Your task to perform on an android device: Open settings Image 0: 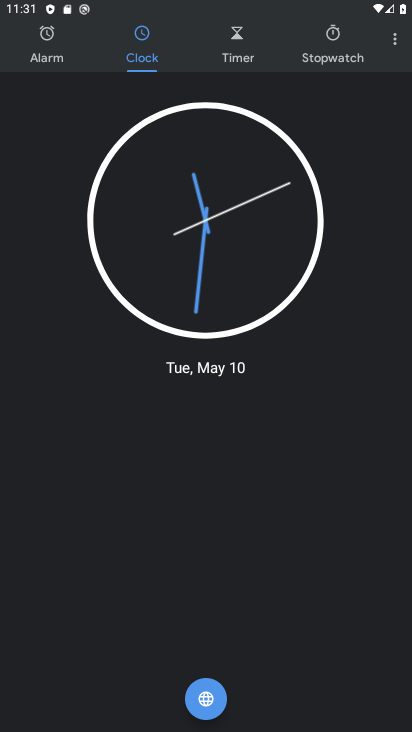
Step 0: press home button
Your task to perform on an android device: Open settings Image 1: 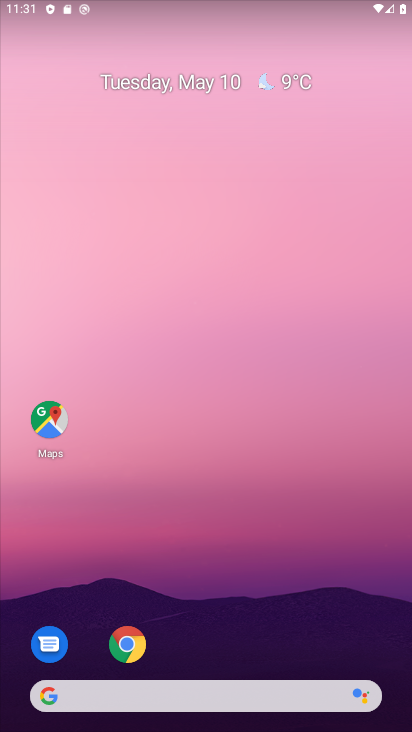
Step 1: drag from (245, 641) to (323, 48)
Your task to perform on an android device: Open settings Image 2: 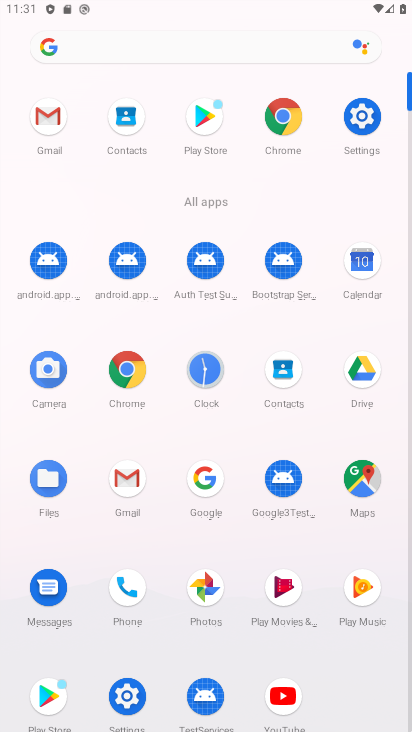
Step 2: click (361, 116)
Your task to perform on an android device: Open settings Image 3: 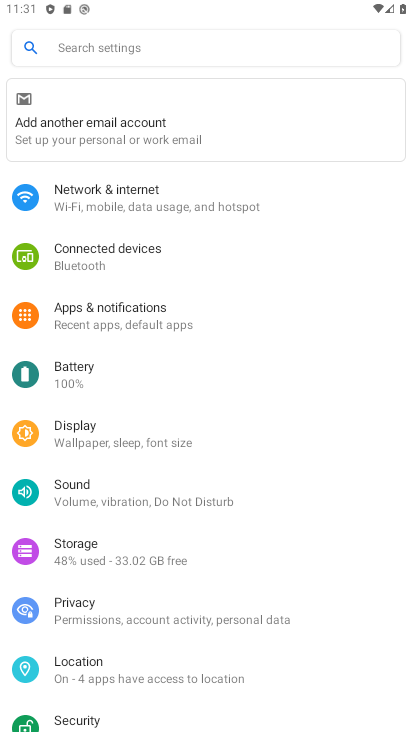
Step 3: task complete